Your task to perform on an android device: Go to display settings Image 0: 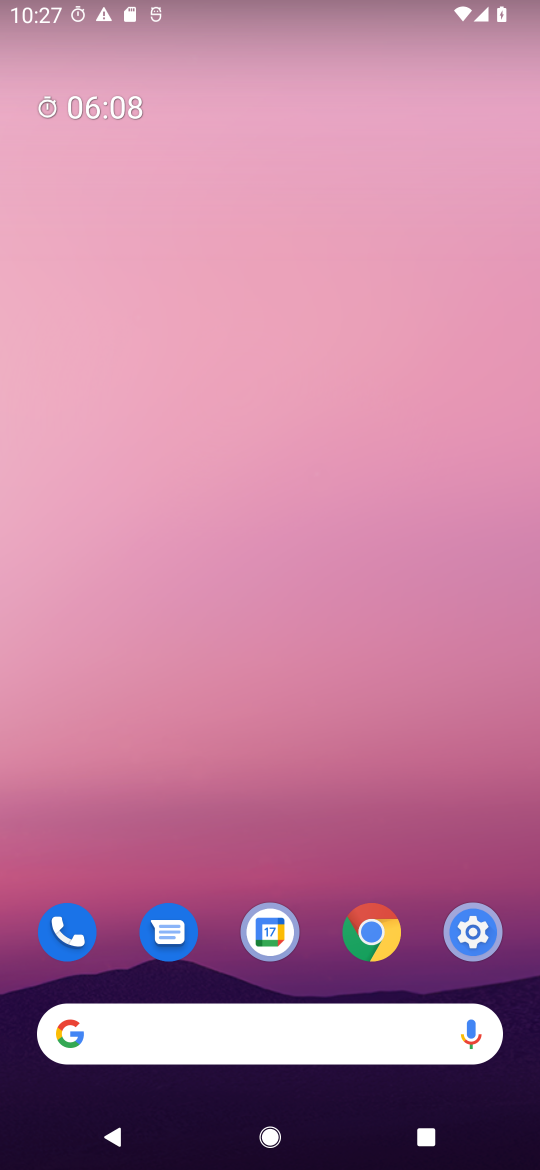
Step 0: click (489, 917)
Your task to perform on an android device: Go to display settings Image 1: 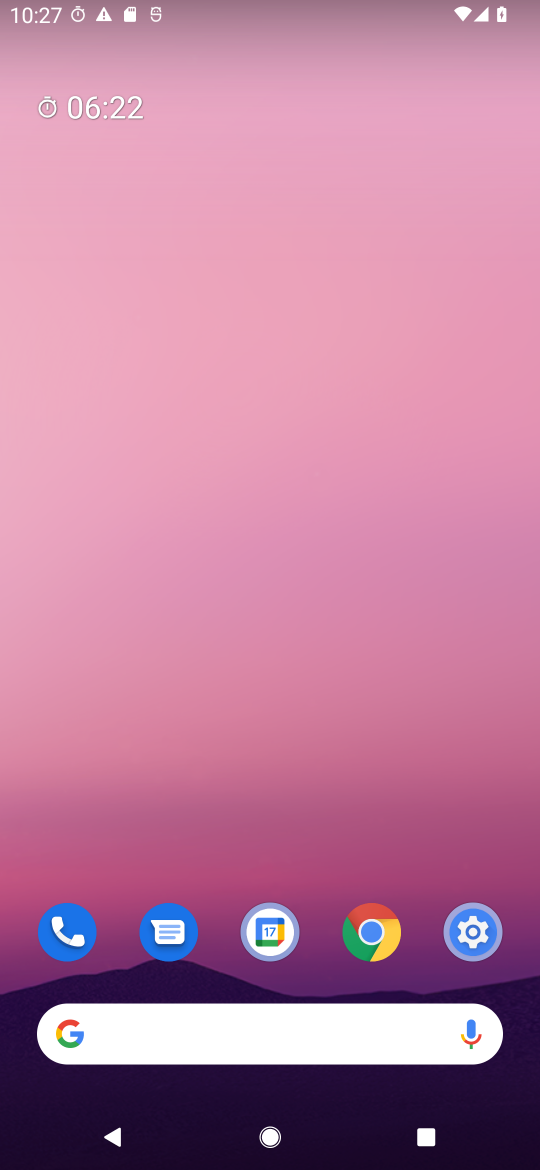
Step 1: click (465, 911)
Your task to perform on an android device: Go to display settings Image 2: 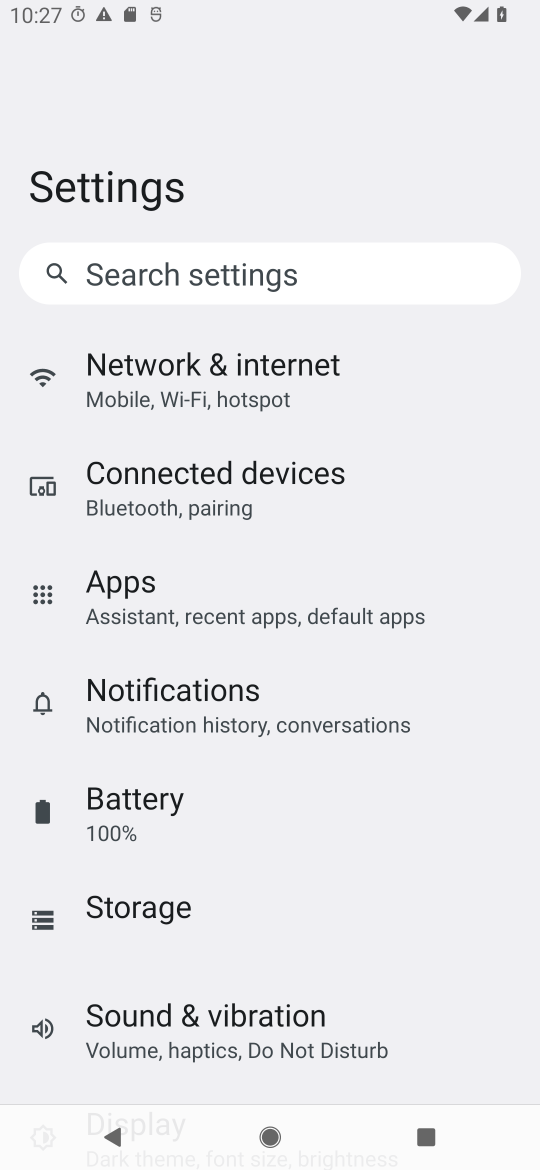
Step 2: drag from (263, 898) to (268, 372)
Your task to perform on an android device: Go to display settings Image 3: 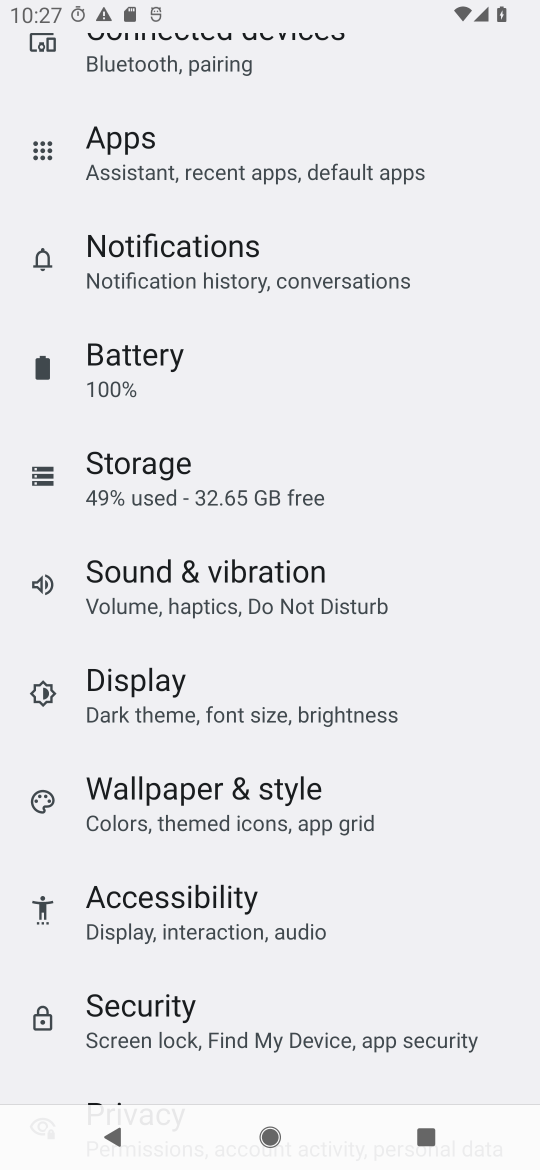
Step 3: click (171, 699)
Your task to perform on an android device: Go to display settings Image 4: 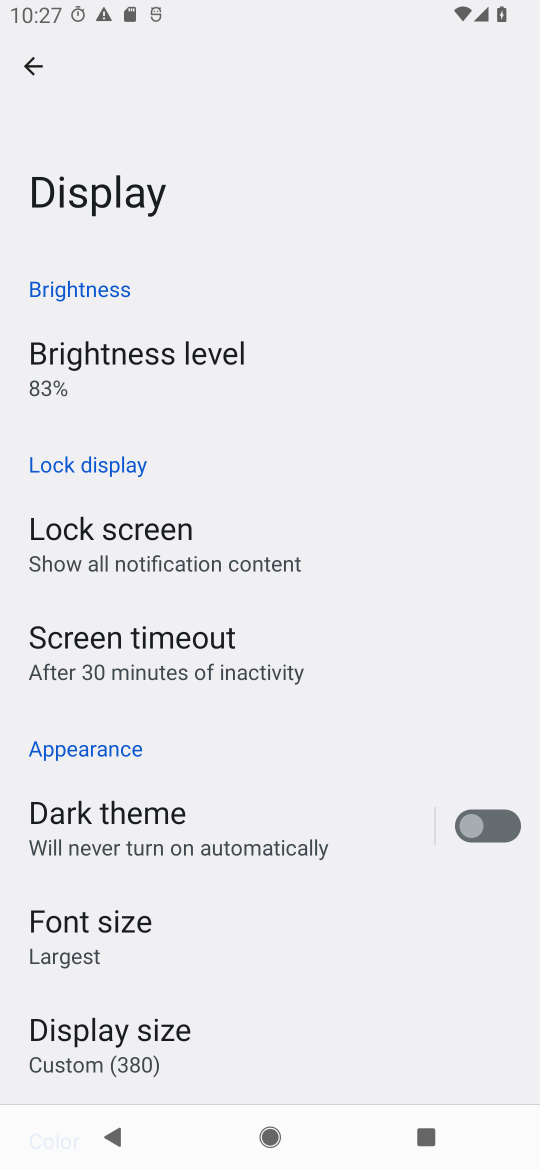
Step 4: task complete